Your task to perform on an android device: What is the news today? Image 0: 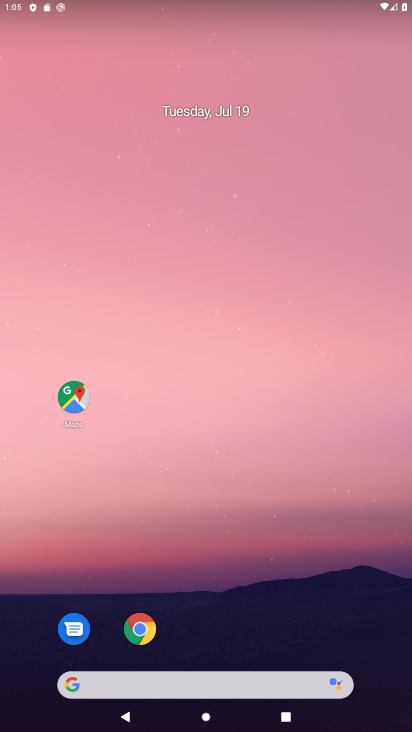
Step 0: click (157, 679)
Your task to perform on an android device: What is the news today? Image 1: 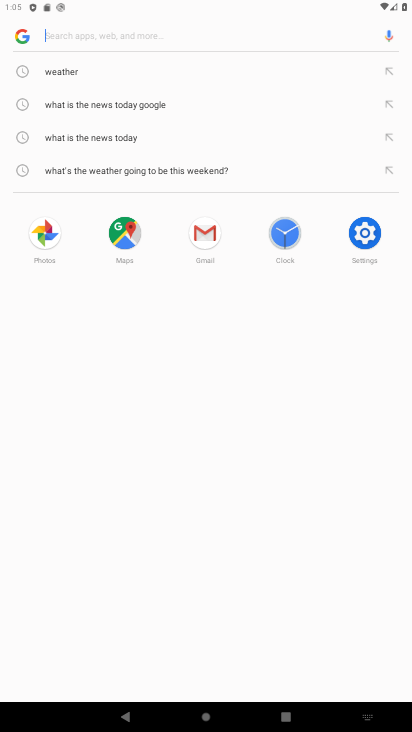
Step 1: type "what is the news today"
Your task to perform on an android device: What is the news today? Image 2: 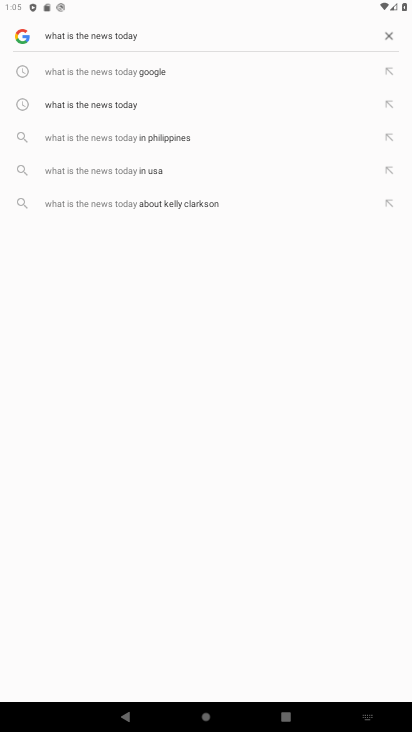
Step 2: click (90, 97)
Your task to perform on an android device: What is the news today? Image 3: 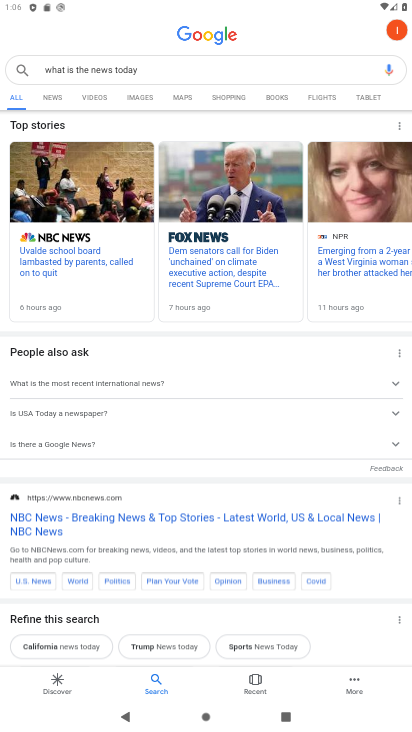
Step 3: click (56, 92)
Your task to perform on an android device: What is the news today? Image 4: 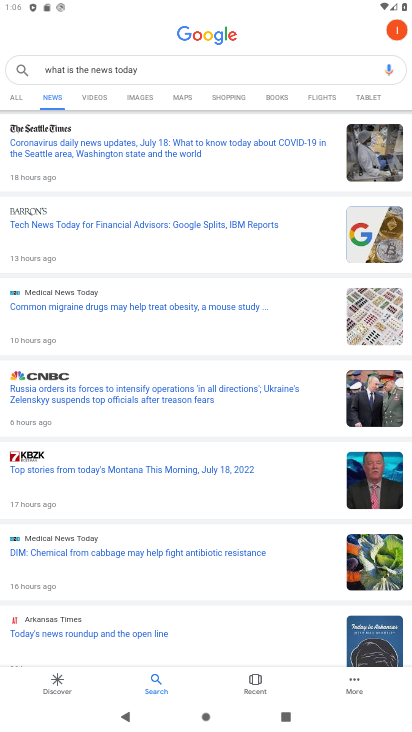
Step 4: task complete